Your task to perform on an android device: toggle data saver in the chrome app Image 0: 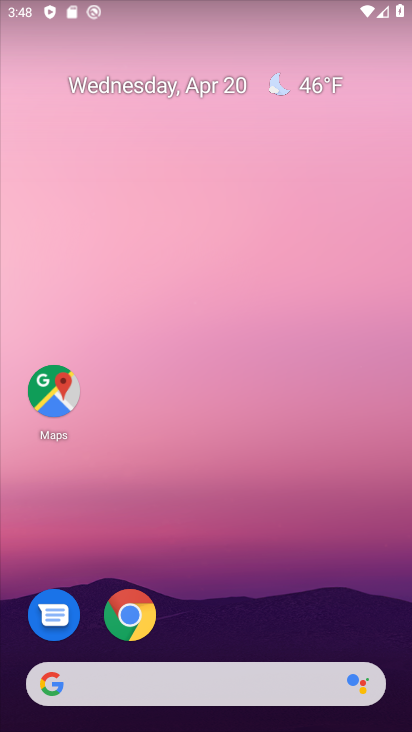
Step 0: drag from (258, 616) to (384, 152)
Your task to perform on an android device: toggle data saver in the chrome app Image 1: 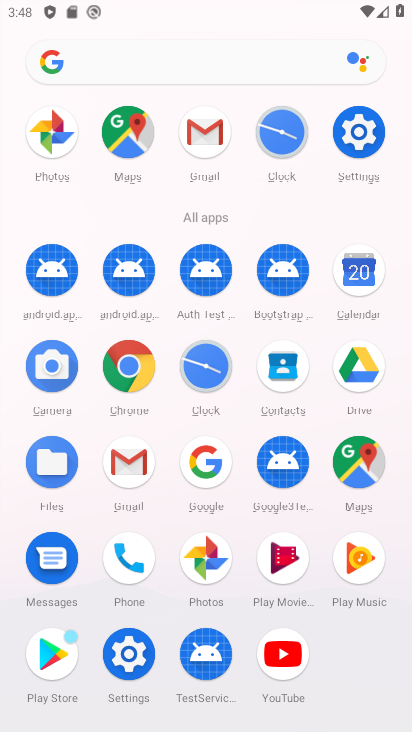
Step 1: click (115, 371)
Your task to perform on an android device: toggle data saver in the chrome app Image 2: 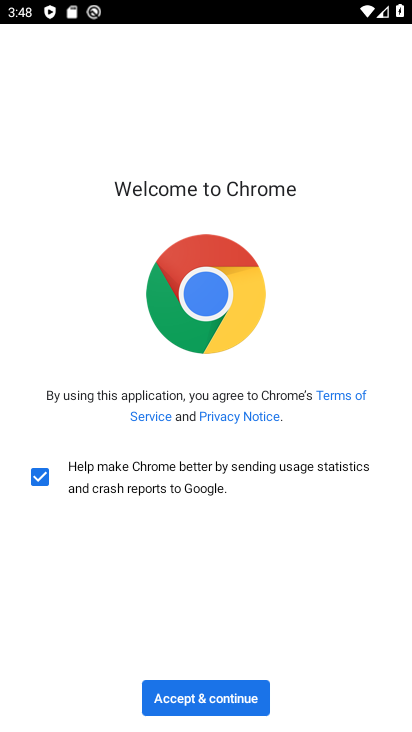
Step 2: click (202, 691)
Your task to perform on an android device: toggle data saver in the chrome app Image 3: 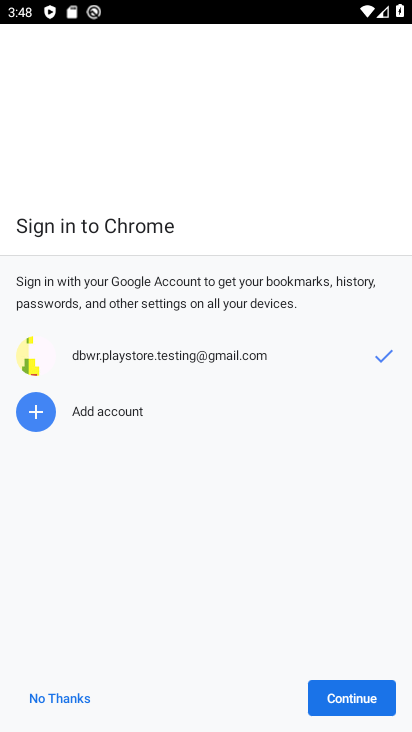
Step 3: click (39, 694)
Your task to perform on an android device: toggle data saver in the chrome app Image 4: 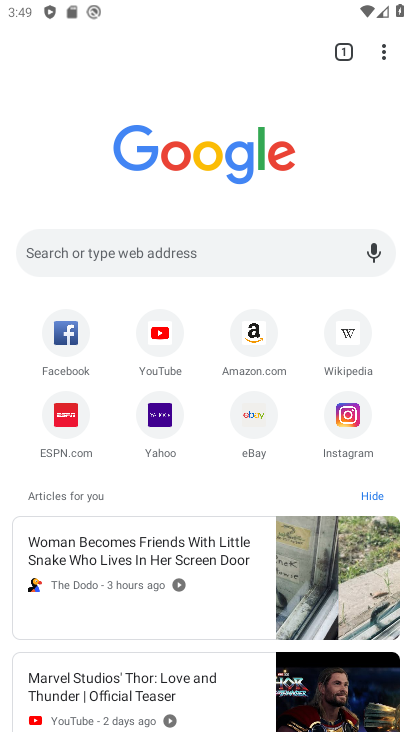
Step 4: drag from (384, 53) to (182, 417)
Your task to perform on an android device: toggle data saver in the chrome app Image 5: 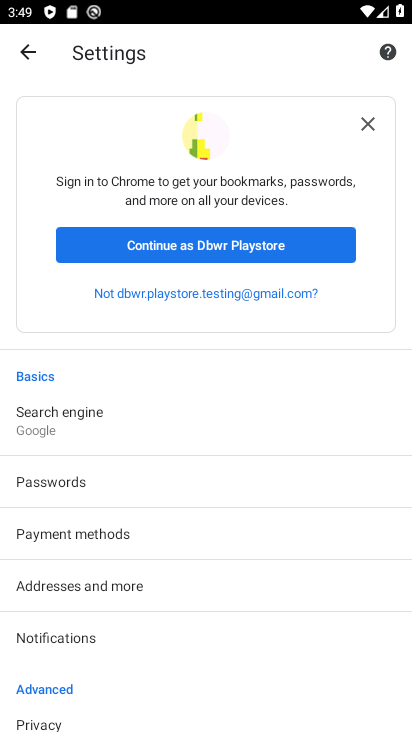
Step 5: drag from (137, 588) to (152, 286)
Your task to perform on an android device: toggle data saver in the chrome app Image 6: 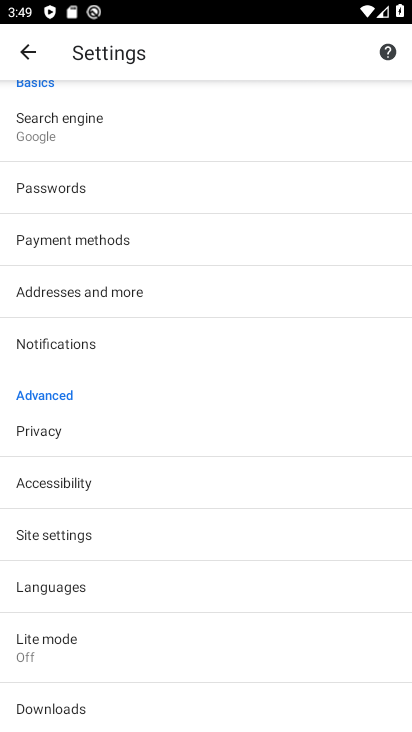
Step 6: drag from (152, 583) to (182, 303)
Your task to perform on an android device: toggle data saver in the chrome app Image 7: 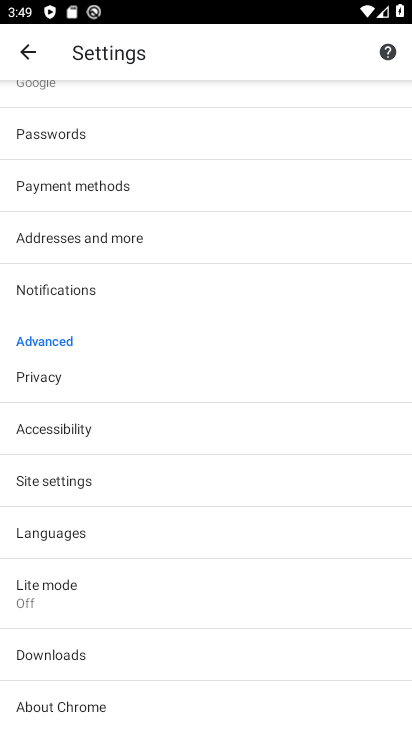
Step 7: click (66, 588)
Your task to perform on an android device: toggle data saver in the chrome app Image 8: 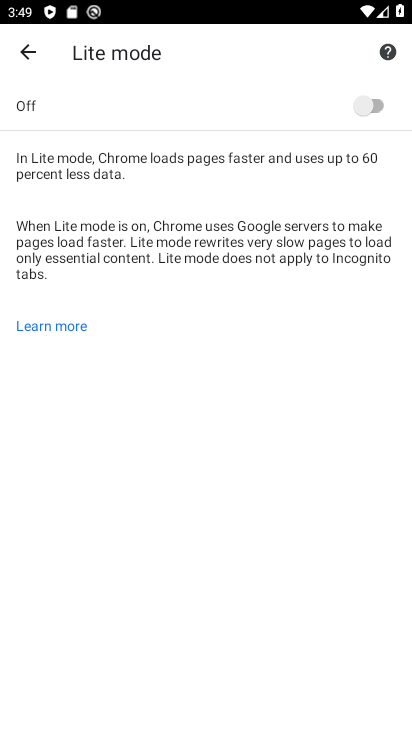
Step 8: click (370, 103)
Your task to perform on an android device: toggle data saver in the chrome app Image 9: 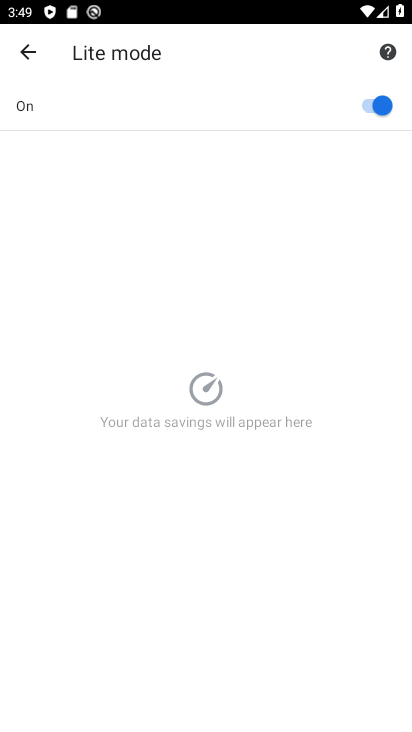
Step 9: task complete